Your task to perform on an android device: Open maps Image 0: 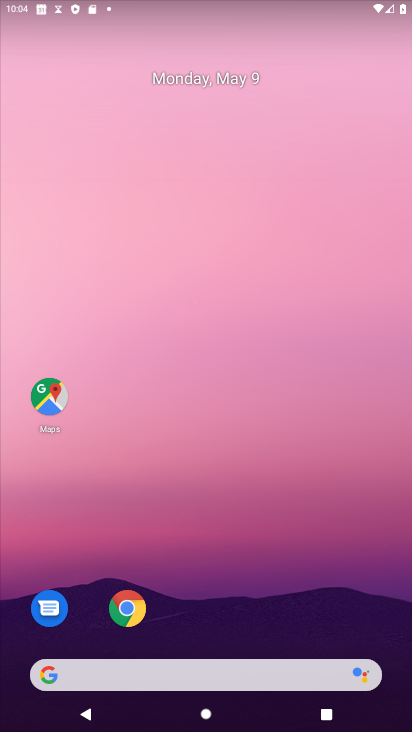
Step 0: click (40, 397)
Your task to perform on an android device: Open maps Image 1: 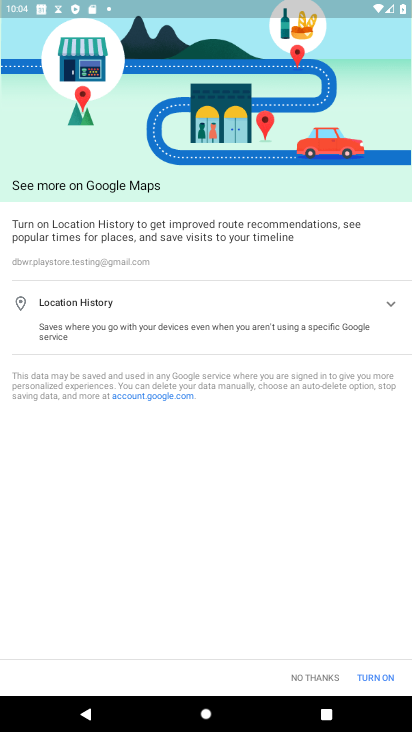
Step 1: click (370, 673)
Your task to perform on an android device: Open maps Image 2: 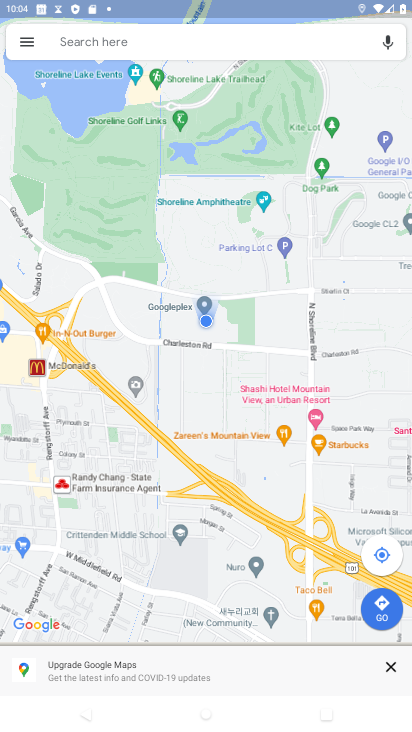
Step 2: task complete